Your task to perform on an android device: create a new album in the google photos Image 0: 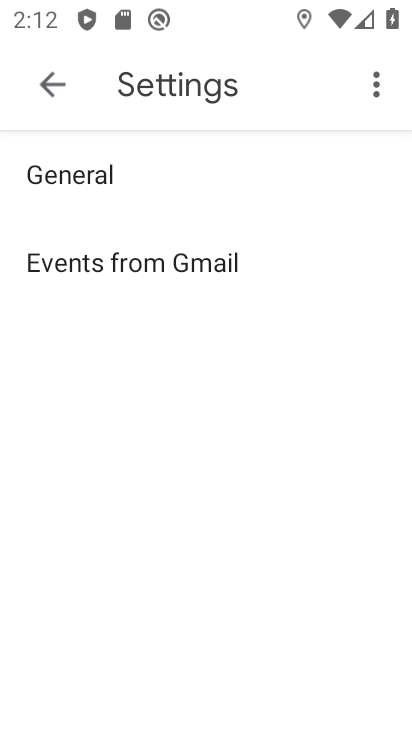
Step 0: press home button
Your task to perform on an android device: create a new album in the google photos Image 1: 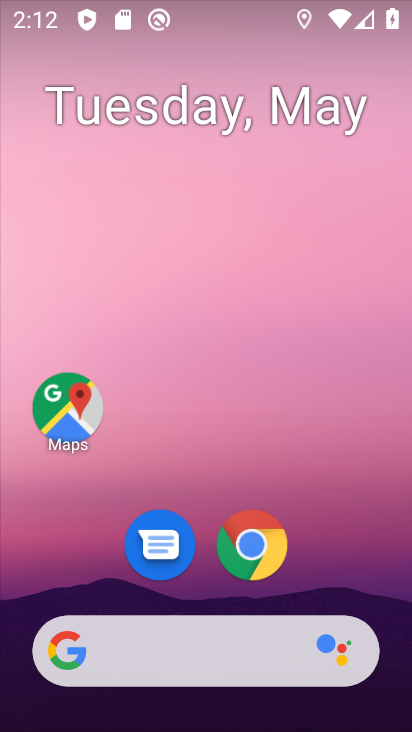
Step 1: drag from (209, 596) to (242, 94)
Your task to perform on an android device: create a new album in the google photos Image 2: 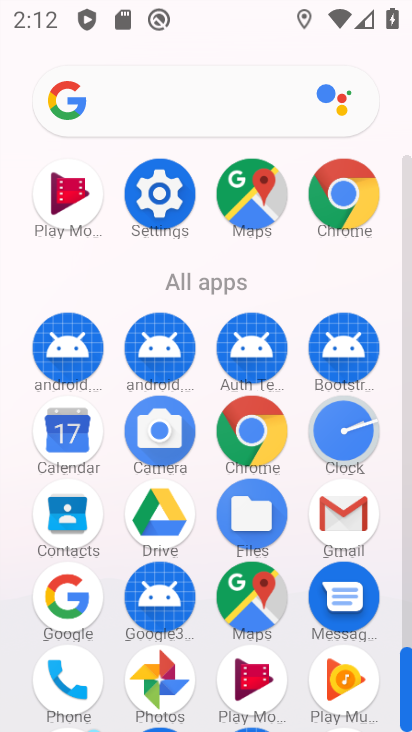
Step 2: click (162, 660)
Your task to perform on an android device: create a new album in the google photos Image 3: 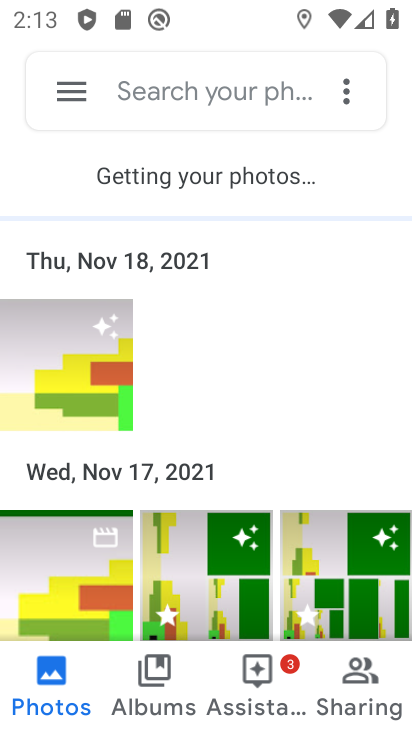
Step 3: click (351, 86)
Your task to perform on an android device: create a new album in the google photos Image 4: 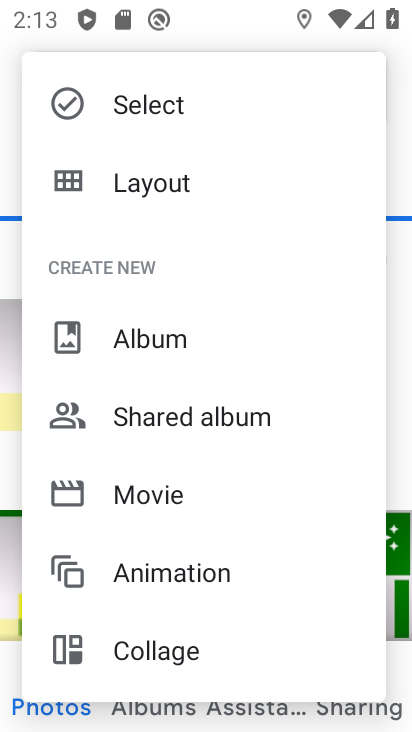
Step 4: click (149, 332)
Your task to perform on an android device: create a new album in the google photos Image 5: 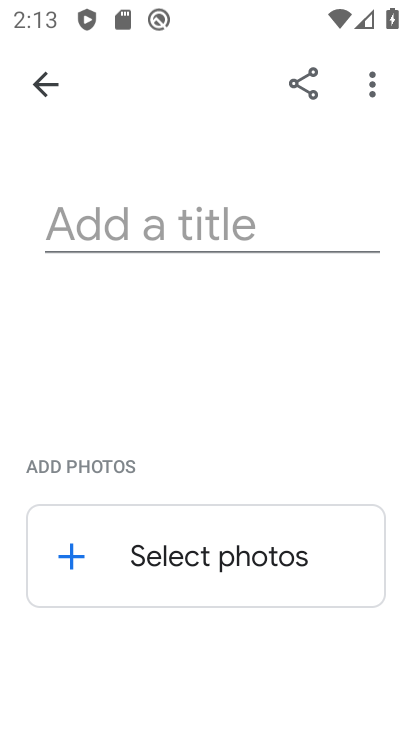
Step 5: click (130, 229)
Your task to perform on an android device: create a new album in the google photos Image 6: 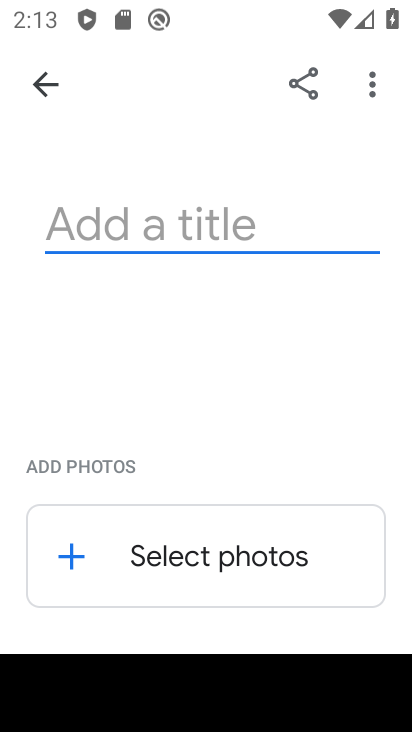
Step 6: type "njnj"
Your task to perform on an android device: create a new album in the google photos Image 7: 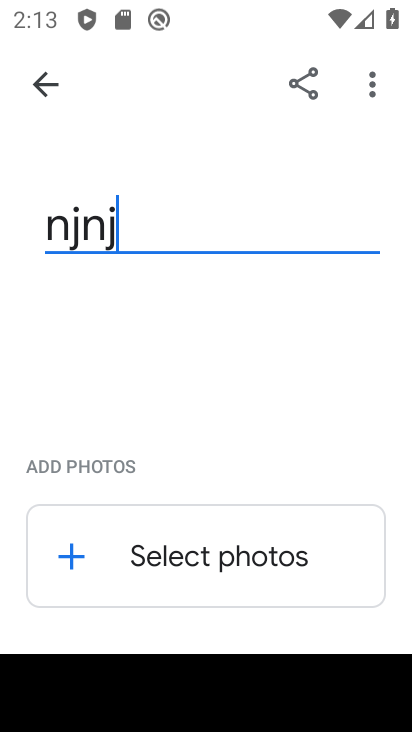
Step 7: click (64, 568)
Your task to perform on an android device: create a new album in the google photos Image 8: 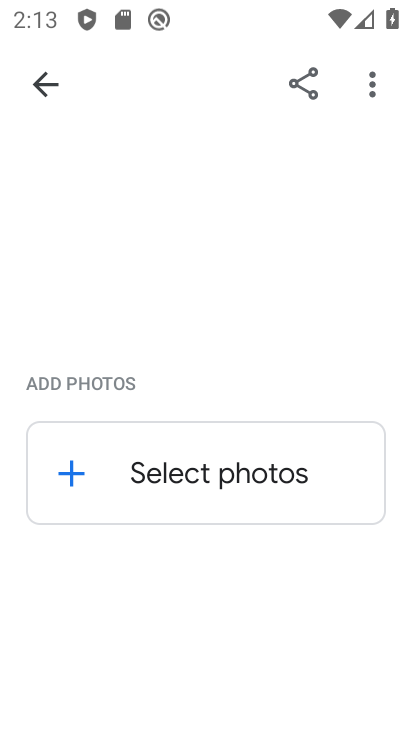
Step 8: click (84, 474)
Your task to perform on an android device: create a new album in the google photos Image 9: 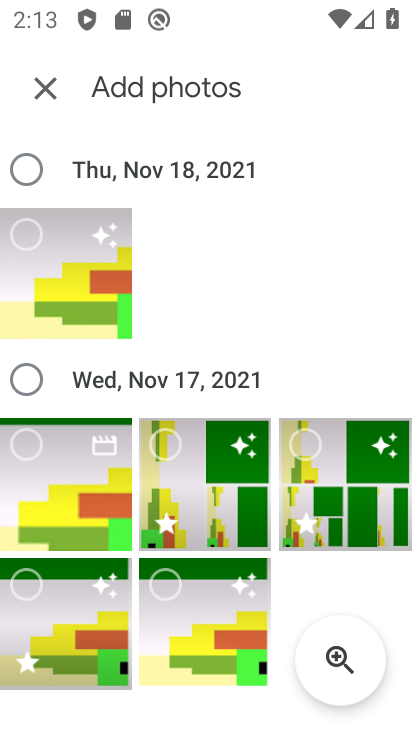
Step 9: click (26, 182)
Your task to perform on an android device: create a new album in the google photos Image 10: 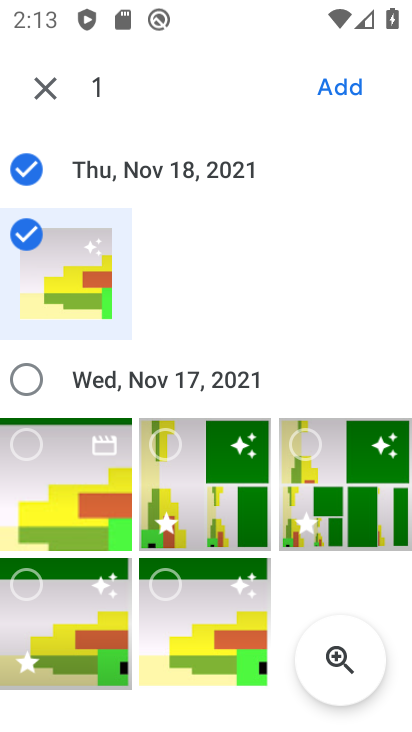
Step 10: click (347, 91)
Your task to perform on an android device: create a new album in the google photos Image 11: 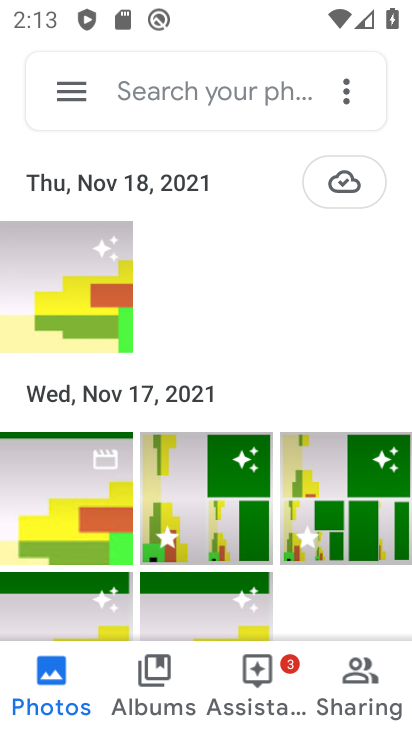
Step 11: task complete